Your task to perform on an android device: open app "Spotify: Music and Podcasts" (install if not already installed) and go to login screen Image 0: 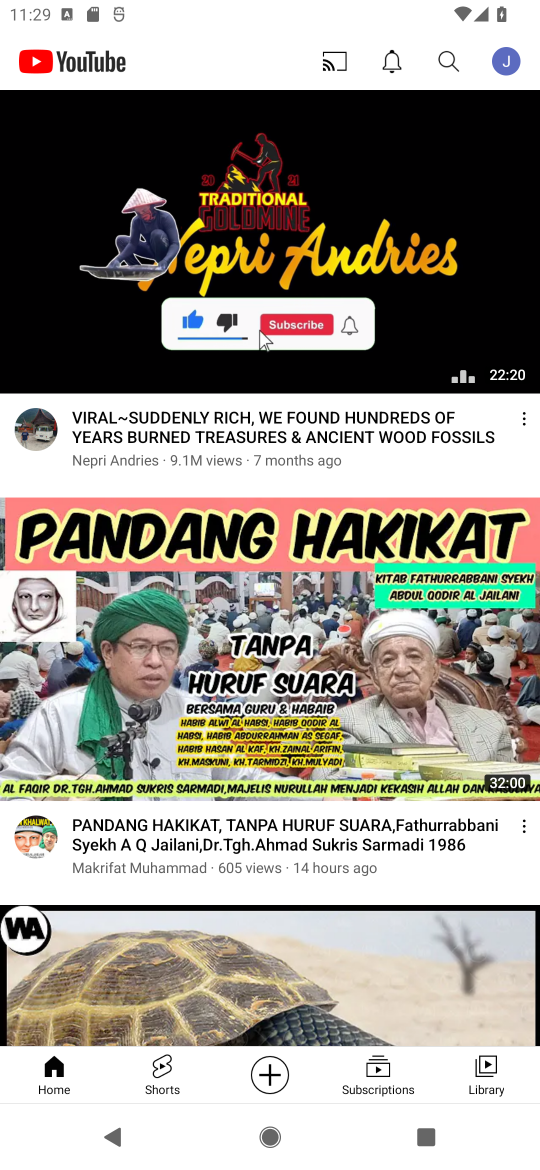
Step 0: press home button
Your task to perform on an android device: open app "Spotify: Music and Podcasts" (install if not already installed) and go to login screen Image 1: 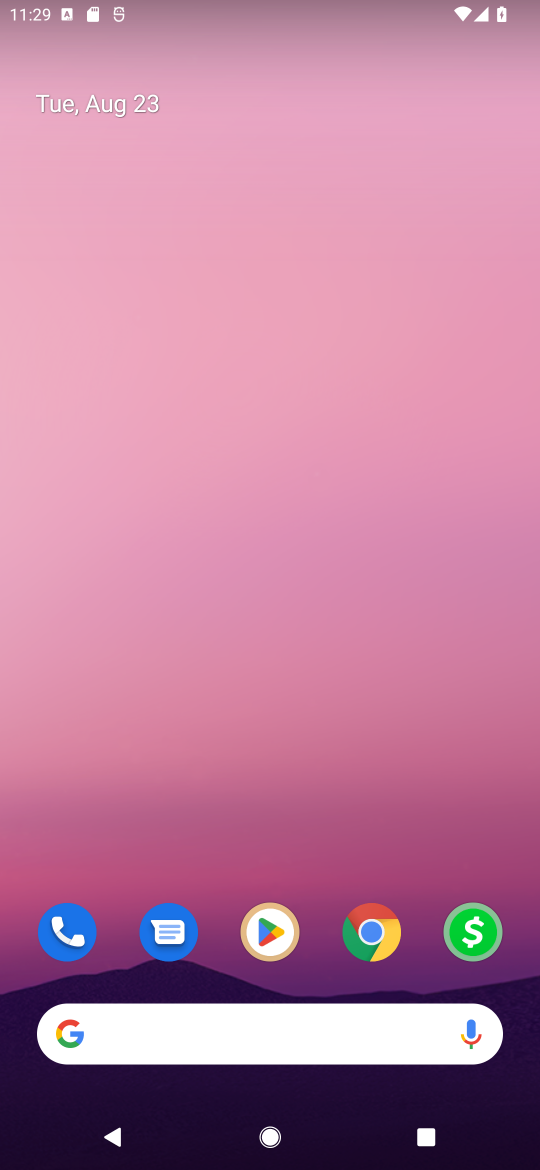
Step 1: click (262, 941)
Your task to perform on an android device: open app "Spotify: Music and Podcasts" (install if not already installed) and go to login screen Image 2: 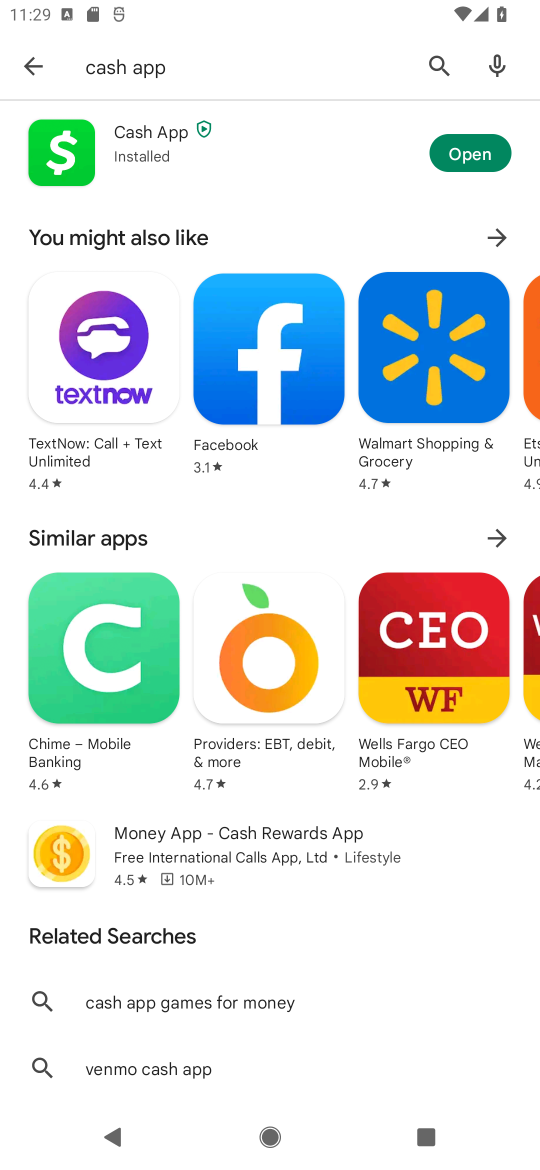
Step 2: click (425, 66)
Your task to perform on an android device: open app "Spotify: Music and Podcasts" (install if not already installed) and go to login screen Image 3: 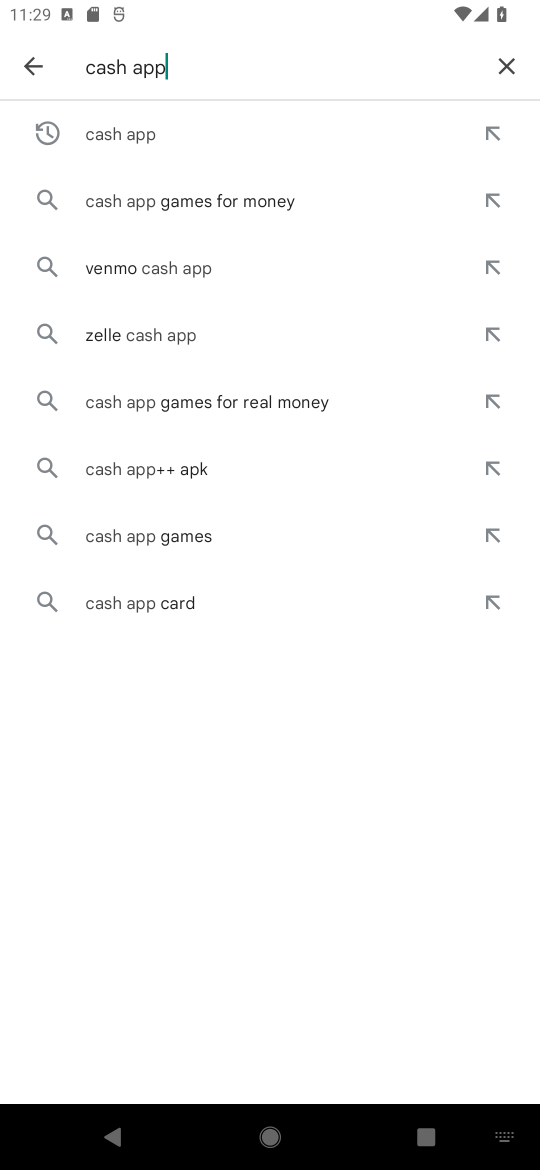
Step 3: click (517, 67)
Your task to perform on an android device: open app "Spotify: Music and Podcasts" (install if not already installed) and go to login screen Image 4: 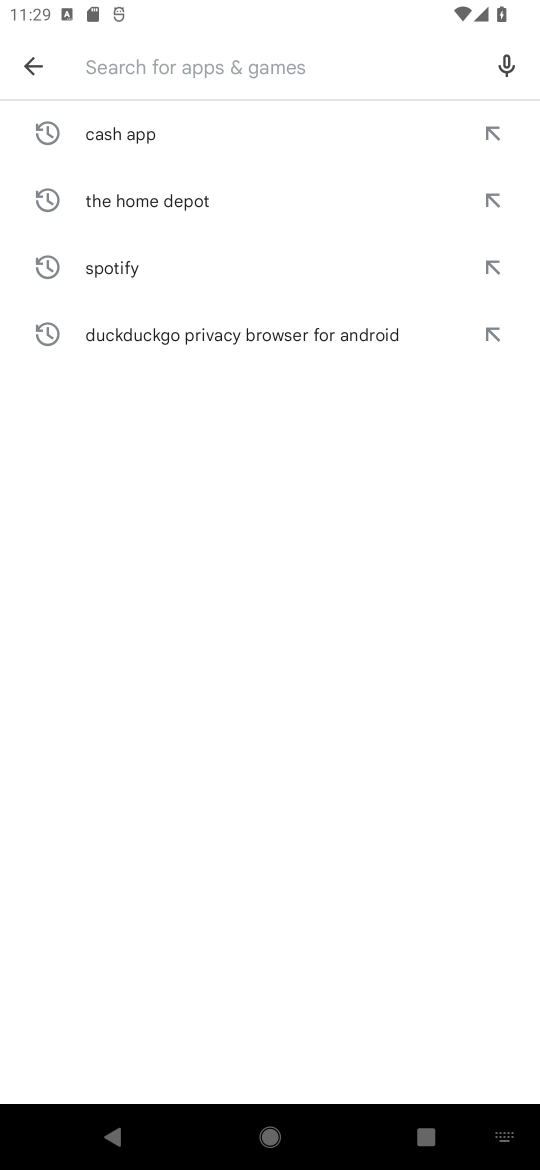
Step 4: click (219, 60)
Your task to perform on an android device: open app "Spotify: Music and Podcasts" (install if not already installed) and go to login screen Image 5: 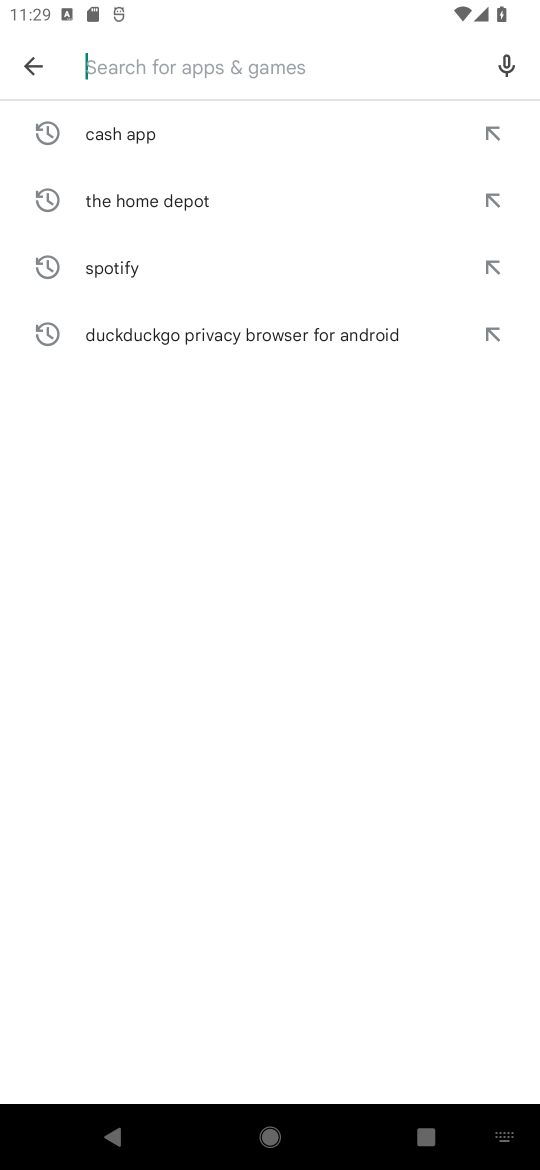
Step 5: type "Spotify: Music and Podcasts"
Your task to perform on an android device: open app "Spotify: Music and Podcasts" (install if not already installed) and go to login screen Image 6: 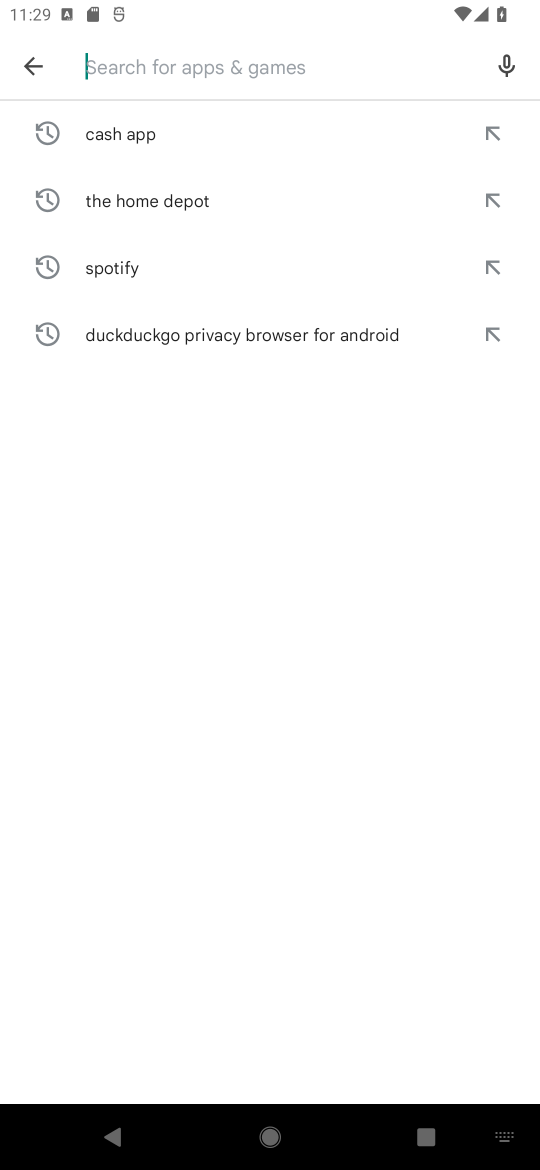
Step 6: click (134, 788)
Your task to perform on an android device: open app "Spotify: Music and Podcasts" (install if not already installed) and go to login screen Image 7: 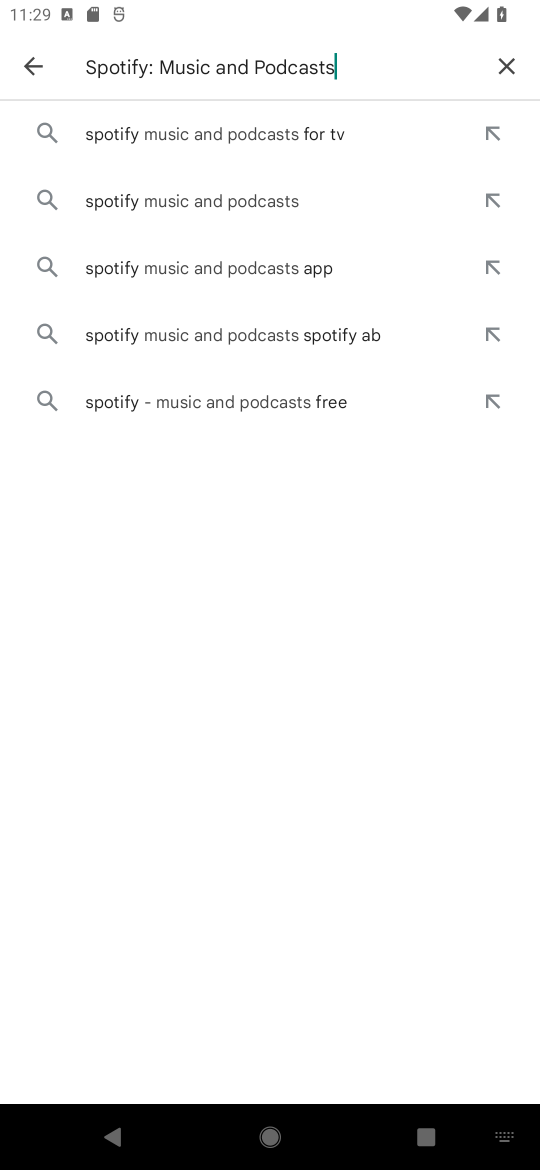
Step 7: click (164, 140)
Your task to perform on an android device: open app "Spotify: Music and Podcasts" (install if not already installed) and go to login screen Image 8: 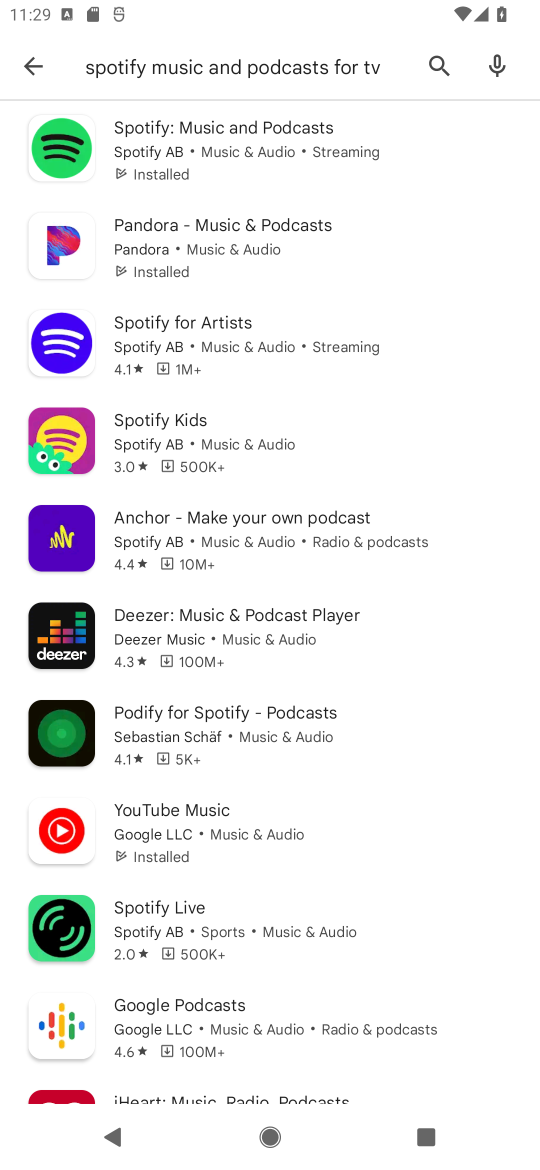
Step 8: click (232, 149)
Your task to perform on an android device: open app "Spotify: Music and Podcasts" (install if not already installed) and go to login screen Image 9: 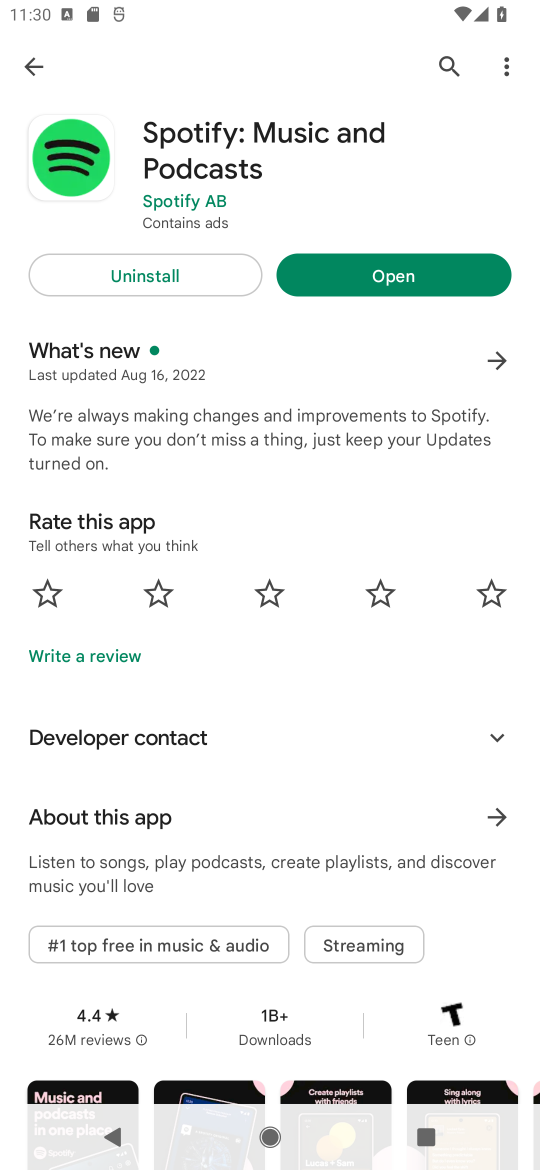
Step 9: click (357, 268)
Your task to perform on an android device: open app "Spotify: Music and Podcasts" (install if not already installed) and go to login screen Image 10: 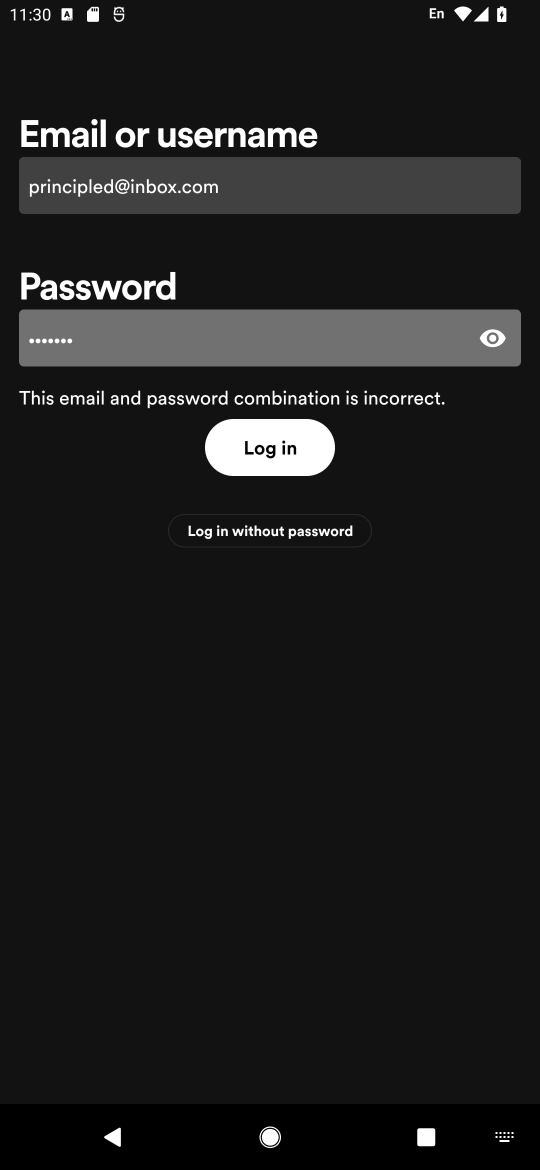
Step 10: task complete